Your task to perform on an android device: read, delete, or share a saved page in the chrome app Image 0: 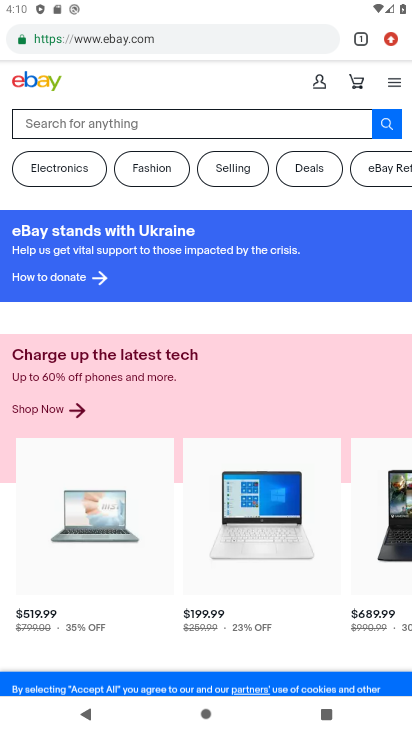
Step 0: press home button
Your task to perform on an android device: read, delete, or share a saved page in the chrome app Image 1: 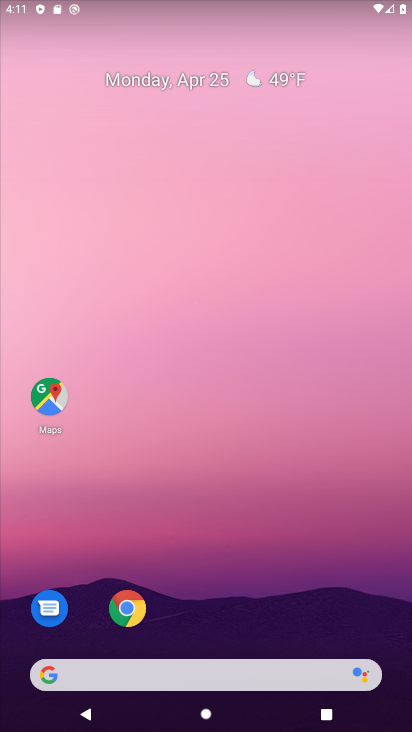
Step 1: click (128, 619)
Your task to perform on an android device: read, delete, or share a saved page in the chrome app Image 2: 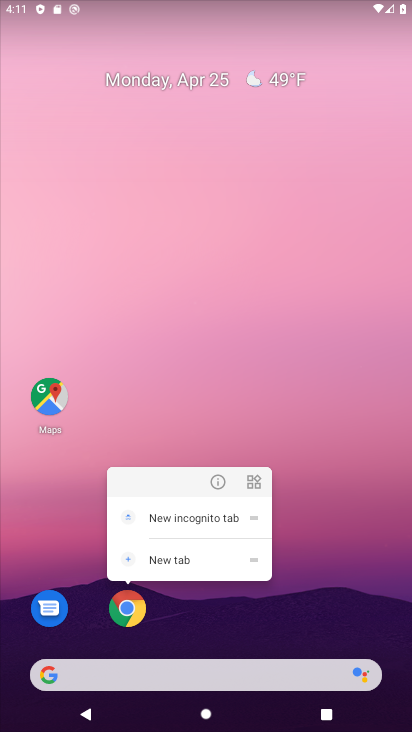
Step 2: click (124, 620)
Your task to perform on an android device: read, delete, or share a saved page in the chrome app Image 3: 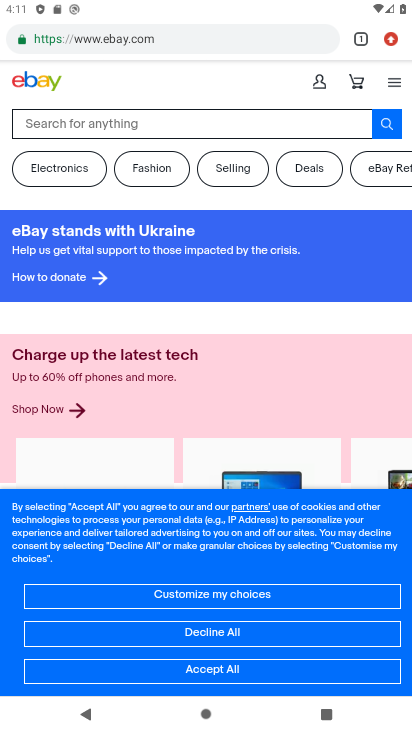
Step 3: click (389, 44)
Your task to perform on an android device: read, delete, or share a saved page in the chrome app Image 4: 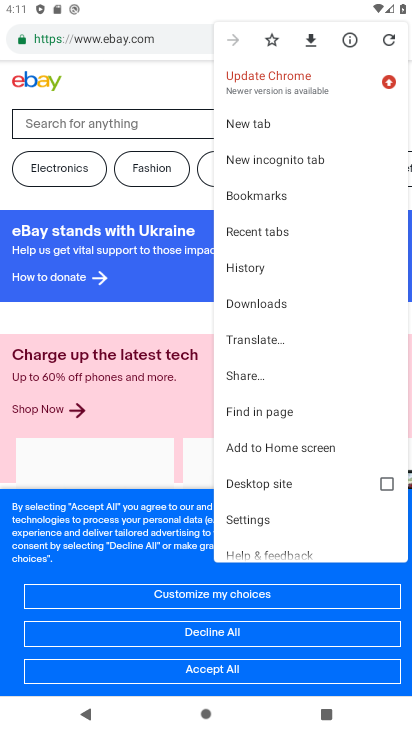
Step 4: click (288, 520)
Your task to perform on an android device: read, delete, or share a saved page in the chrome app Image 5: 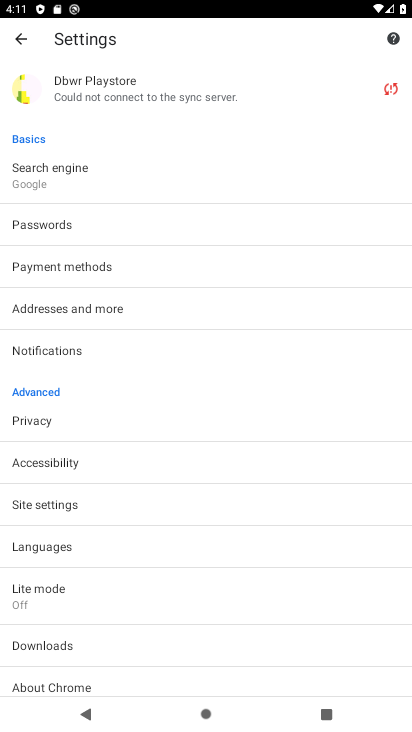
Step 5: click (22, 36)
Your task to perform on an android device: read, delete, or share a saved page in the chrome app Image 6: 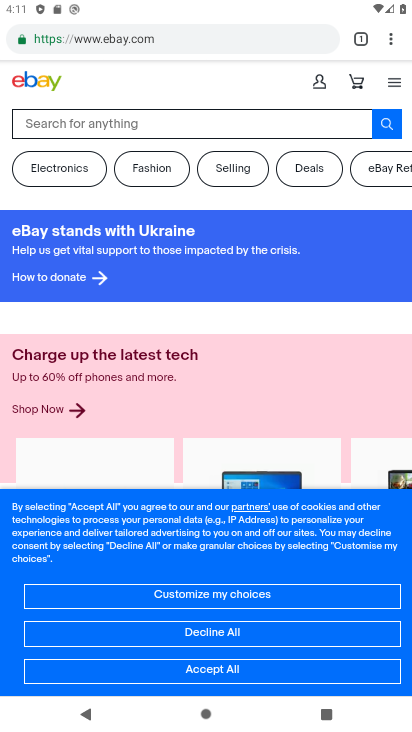
Step 6: click (387, 42)
Your task to perform on an android device: read, delete, or share a saved page in the chrome app Image 7: 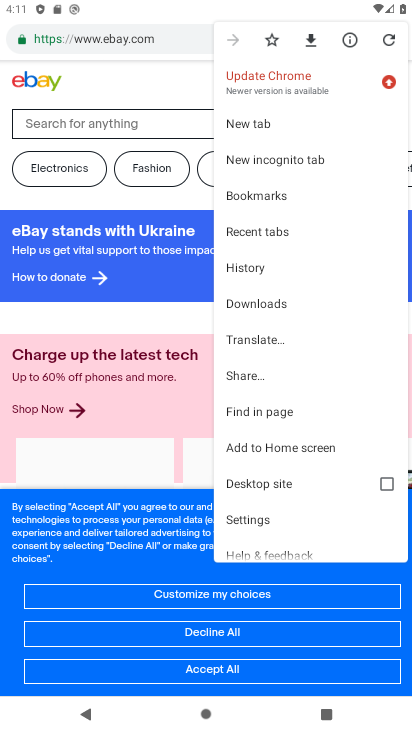
Step 7: click (272, 305)
Your task to perform on an android device: read, delete, or share a saved page in the chrome app Image 8: 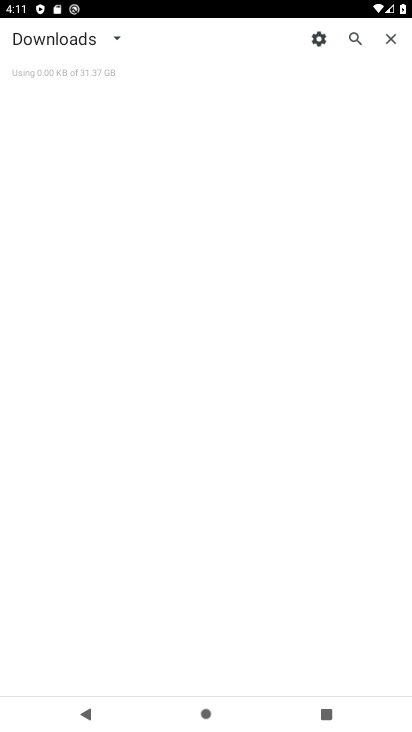
Step 8: click (110, 40)
Your task to perform on an android device: read, delete, or share a saved page in the chrome app Image 9: 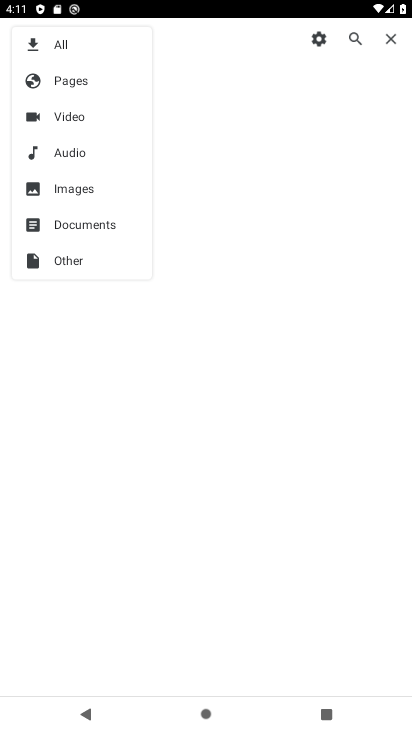
Step 9: click (69, 87)
Your task to perform on an android device: read, delete, or share a saved page in the chrome app Image 10: 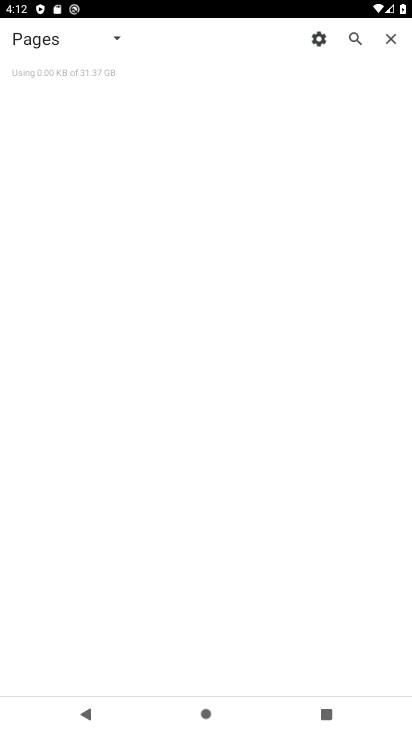
Step 10: task complete